Your task to perform on an android device: Go to display settings Image 0: 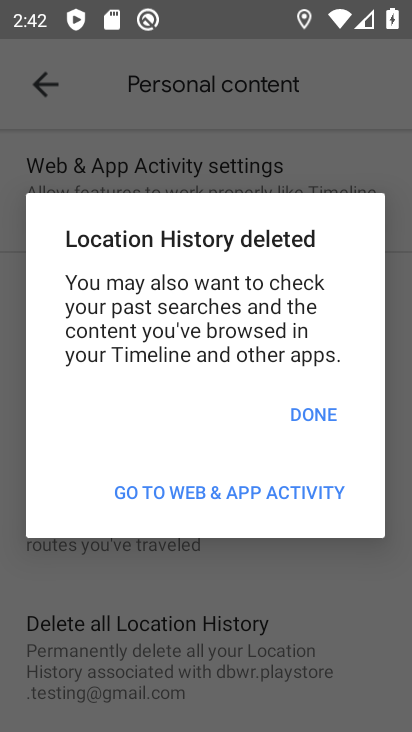
Step 0: press home button
Your task to perform on an android device: Go to display settings Image 1: 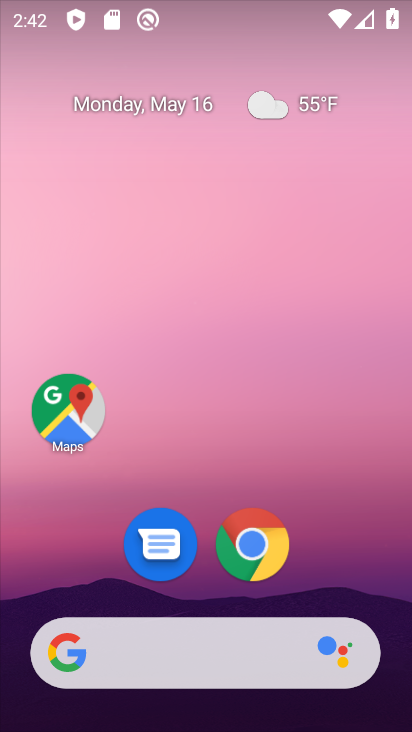
Step 1: drag from (342, 520) to (264, 67)
Your task to perform on an android device: Go to display settings Image 2: 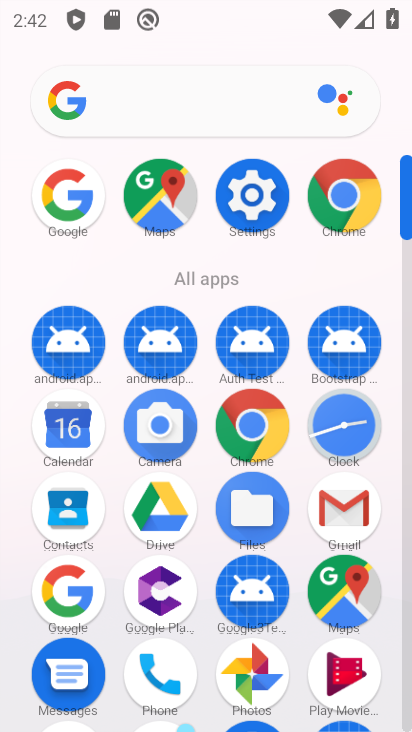
Step 2: click (273, 218)
Your task to perform on an android device: Go to display settings Image 3: 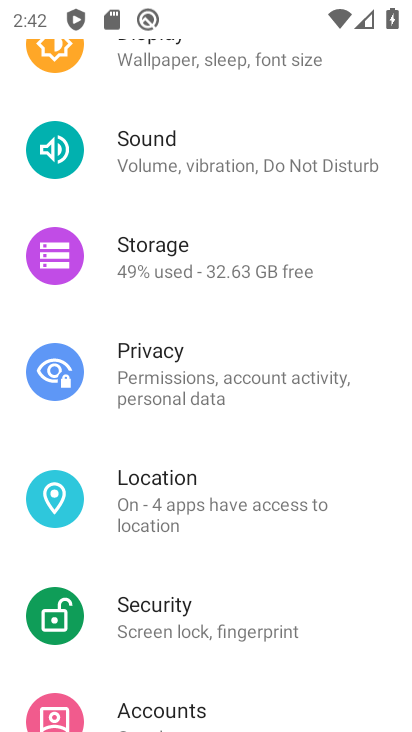
Step 3: drag from (209, 605) to (217, 208)
Your task to perform on an android device: Go to display settings Image 4: 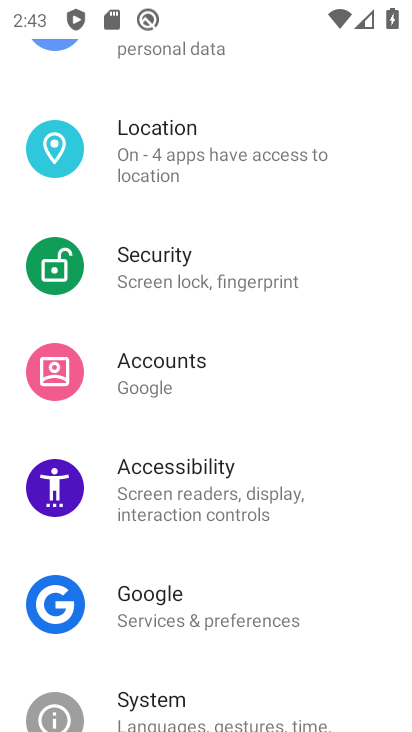
Step 4: drag from (197, 539) to (169, 196)
Your task to perform on an android device: Go to display settings Image 5: 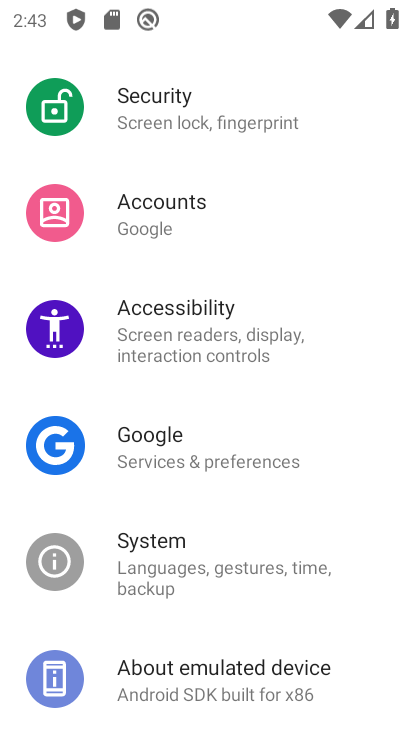
Step 5: drag from (159, 194) to (272, 685)
Your task to perform on an android device: Go to display settings Image 6: 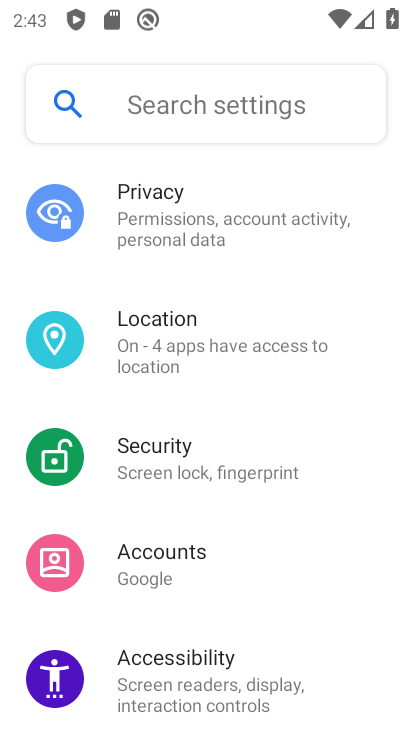
Step 6: drag from (164, 290) to (245, 680)
Your task to perform on an android device: Go to display settings Image 7: 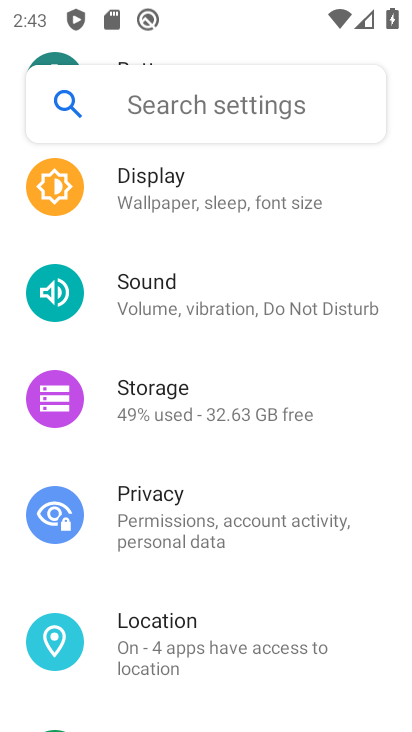
Step 7: click (176, 183)
Your task to perform on an android device: Go to display settings Image 8: 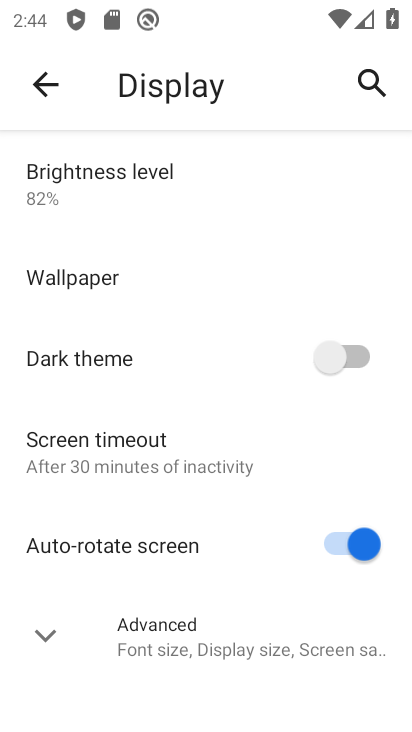
Step 8: task complete